Your task to perform on an android device: Search for macbook pro 15 inch on walmart, select the first entry, add it to the cart, then select checkout. Image 0: 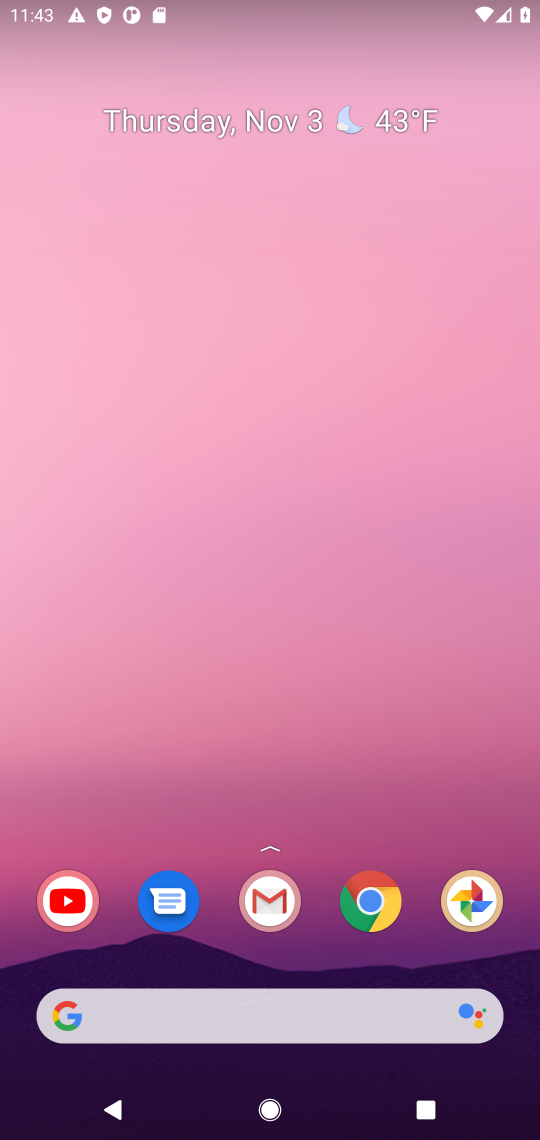
Step 0: click (374, 898)
Your task to perform on an android device: Search for macbook pro 15 inch on walmart, select the first entry, add it to the cart, then select checkout. Image 1: 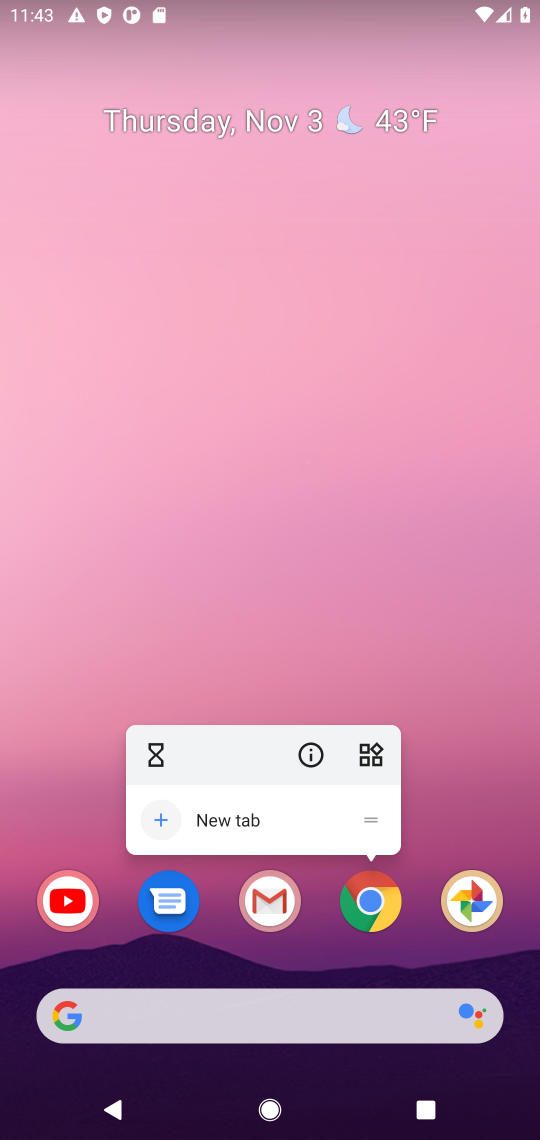
Step 1: click (374, 898)
Your task to perform on an android device: Search for macbook pro 15 inch on walmart, select the first entry, add it to the cart, then select checkout. Image 2: 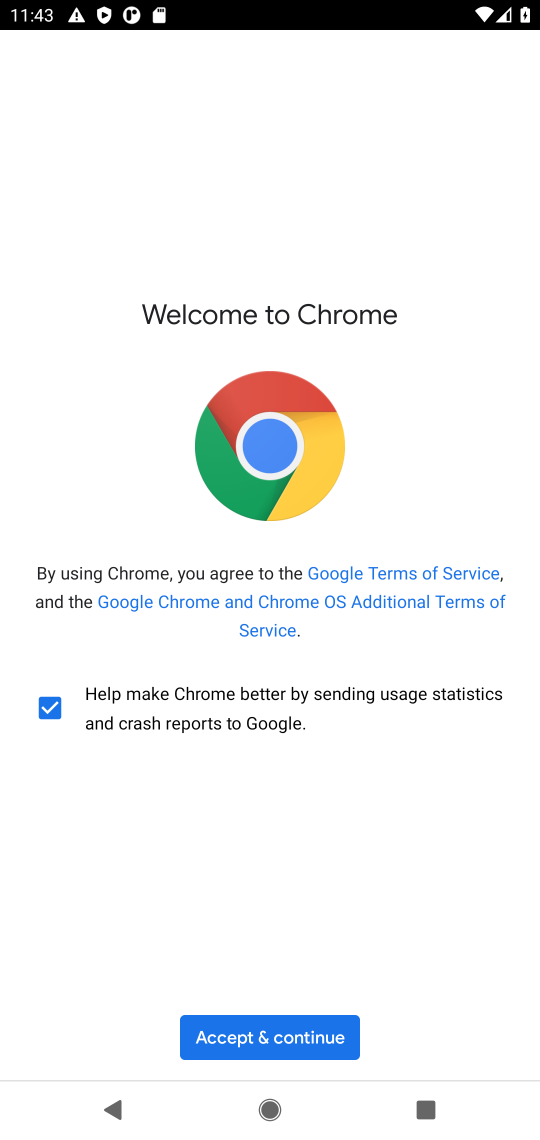
Step 2: click (300, 1030)
Your task to perform on an android device: Search for macbook pro 15 inch on walmart, select the first entry, add it to the cart, then select checkout. Image 3: 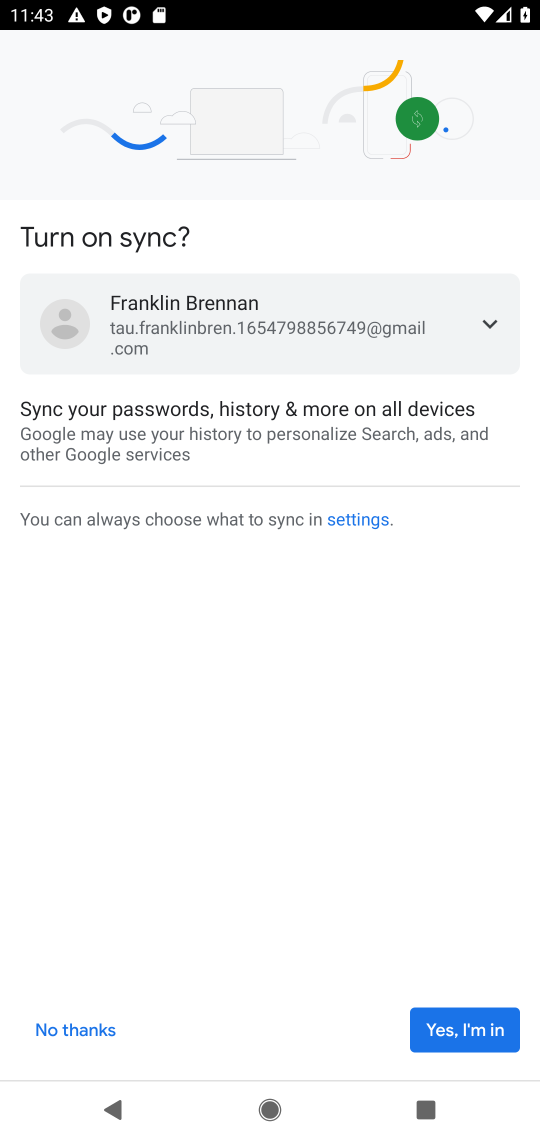
Step 3: click (503, 1029)
Your task to perform on an android device: Search for macbook pro 15 inch on walmart, select the first entry, add it to the cart, then select checkout. Image 4: 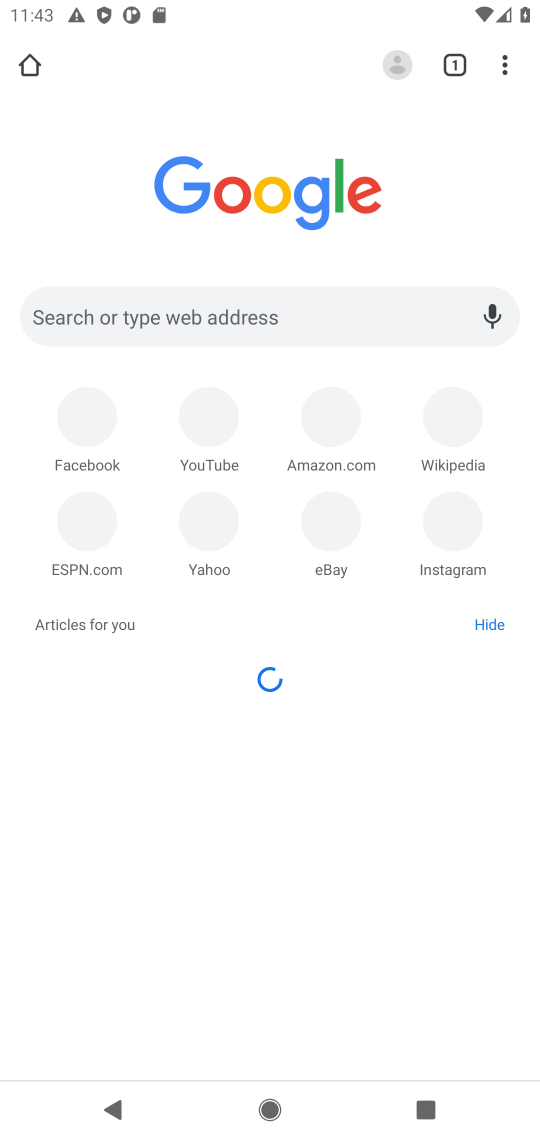
Step 4: click (303, 315)
Your task to perform on an android device: Search for macbook pro 15 inch on walmart, select the first entry, add it to the cart, then select checkout. Image 5: 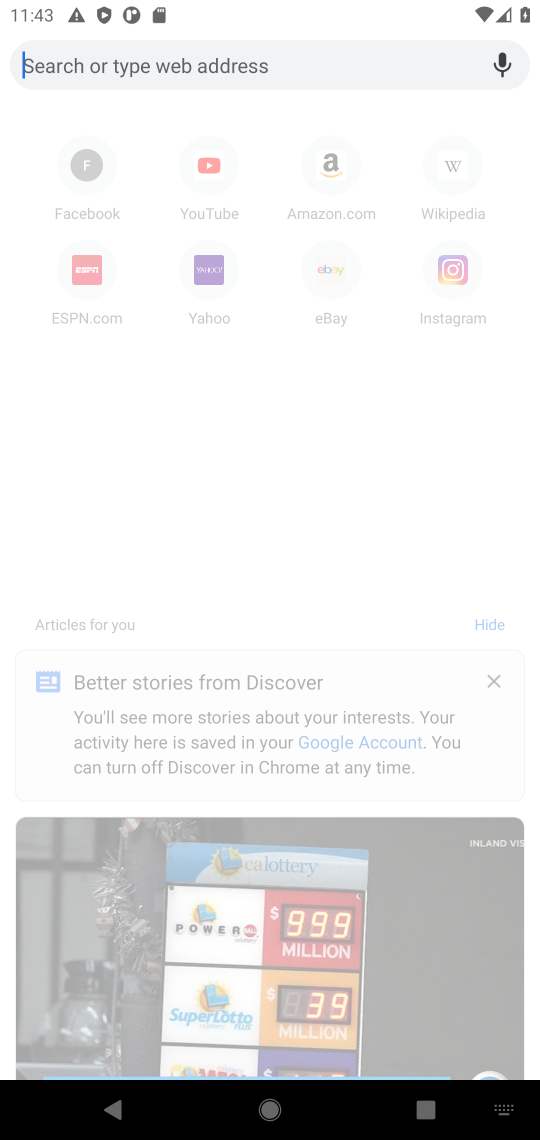
Step 5: type "walmart"
Your task to perform on an android device: Search for macbook pro 15 inch on walmart, select the first entry, add it to the cart, then select checkout. Image 6: 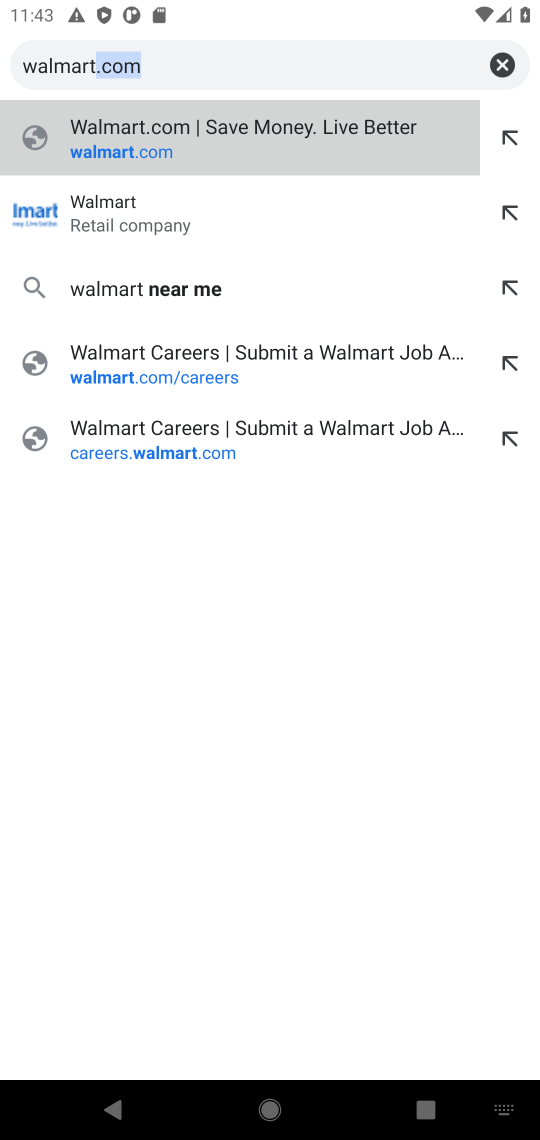
Step 6: click (254, 75)
Your task to perform on an android device: Search for macbook pro 15 inch on walmart, select the first entry, add it to the cart, then select checkout. Image 7: 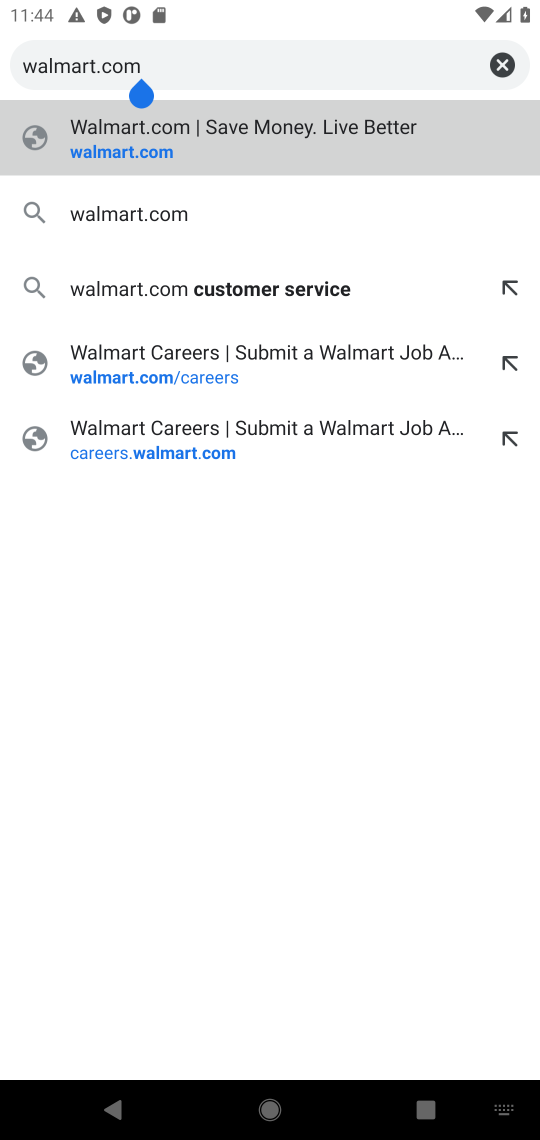
Step 7: click (157, 205)
Your task to perform on an android device: Search for macbook pro 15 inch on walmart, select the first entry, add it to the cart, then select checkout. Image 8: 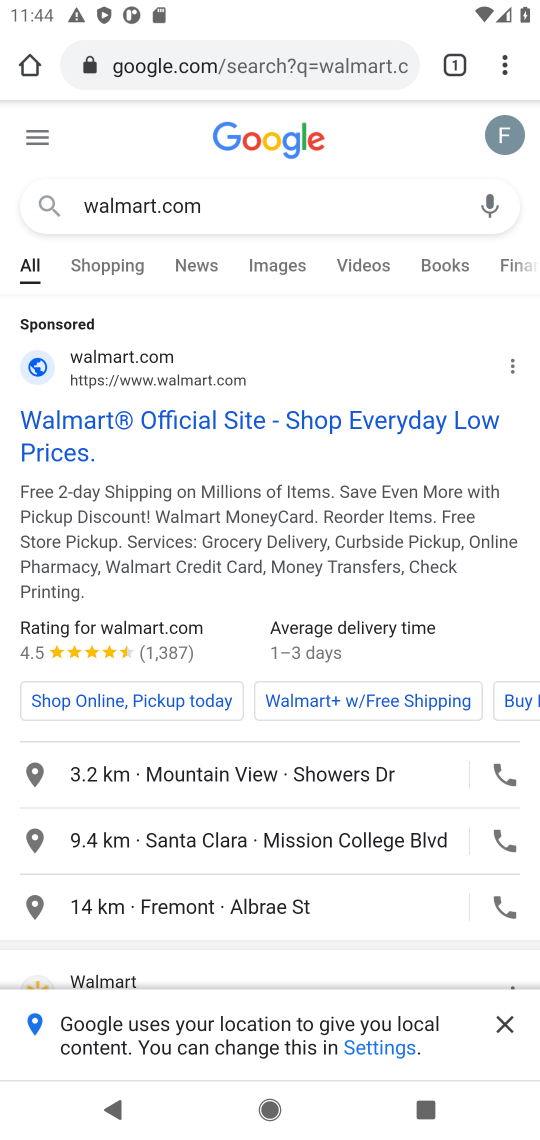
Step 8: drag from (396, 740) to (394, 475)
Your task to perform on an android device: Search for macbook pro 15 inch on walmart, select the first entry, add it to the cart, then select checkout. Image 9: 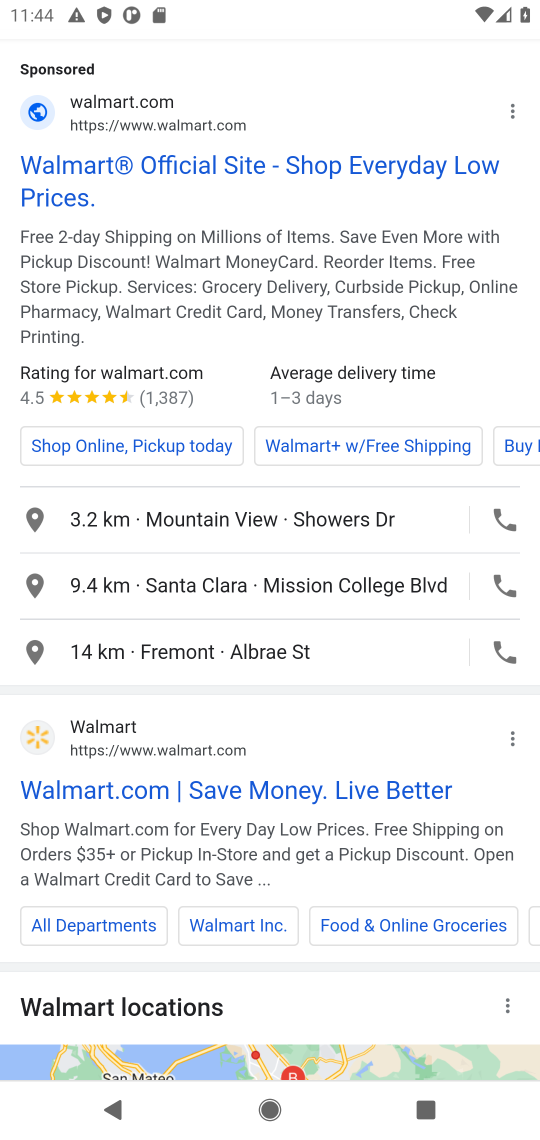
Step 9: click (199, 749)
Your task to perform on an android device: Search for macbook pro 15 inch on walmart, select the first entry, add it to the cart, then select checkout. Image 10: 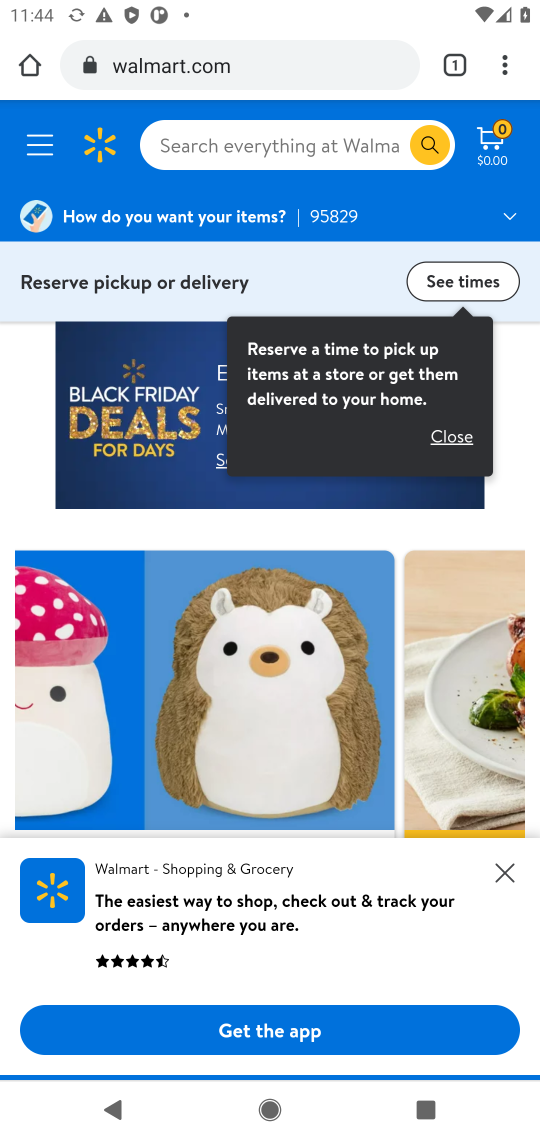
Step 10: click (289, 133)
Your task to perform on an android device: Search for macbook pro 15 inch on walmart, select the first entry, add it to the cart, then select checkout. Image 11: 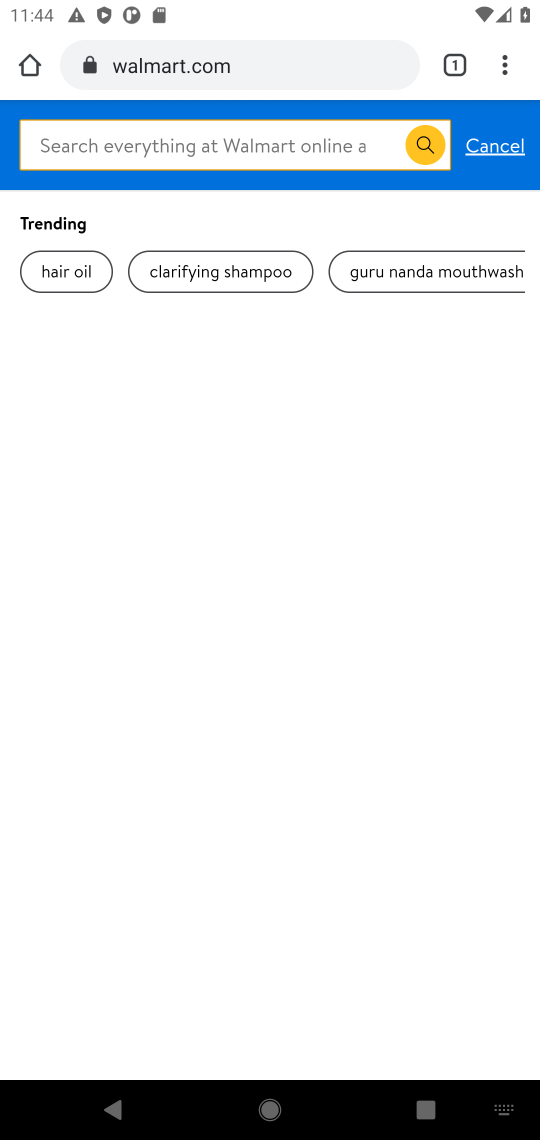
Step 11: type " macbook pro 15 inch"
Your task to perform on an android device: Search for macbook pro 15 inch on walmart, select the first entry, add it to the cart, then select checkout. Image 12: 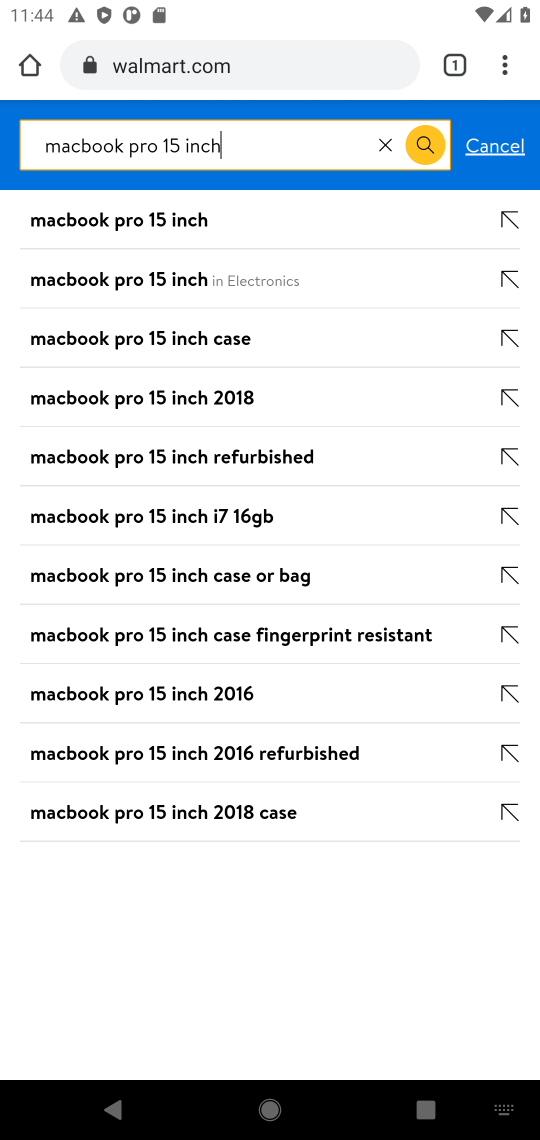
Step 12: click (178, 211)
Your task to perform on an android device: Search for macbook pro 15 inch on walmart, select the first entry, add it to the cart, then select checkout. Image 13: 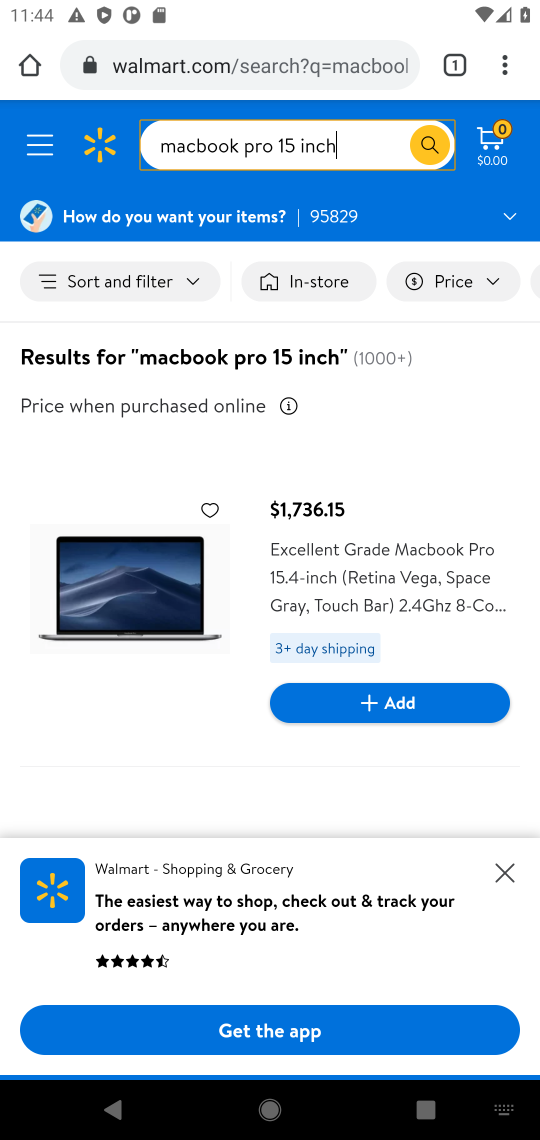
Step 13: click (202, 585)
Your task to perform on an android device: Search for macbook pro 15 inch on walmart, select the first entry, add it to the cart, then select checkout. Image 14: 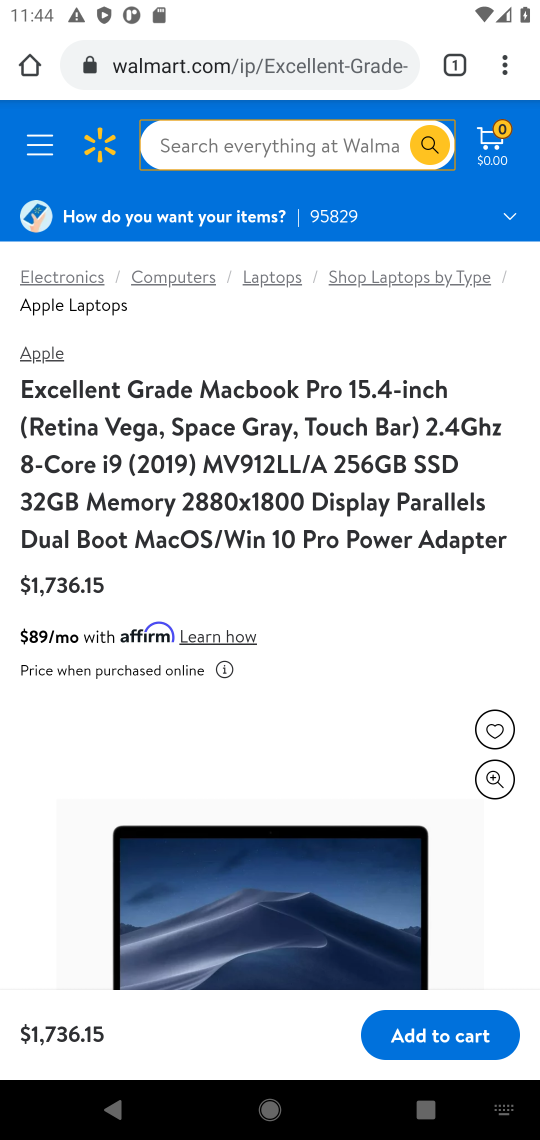
Step 14: drag from (236, 766) to (210, 369)
Your task to perform on an android device: Search for macbook pro 15 inch on walmart, select the first entry, add it to the cart, then select checkout. Image 15: 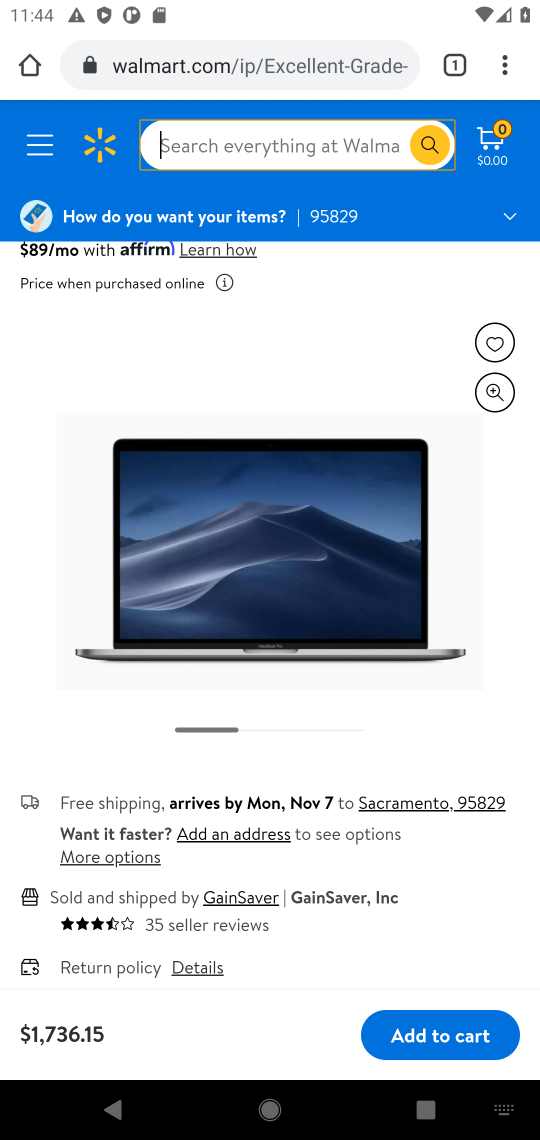
Step 15: click (441, 1031)
Your task to perform on an android device: Search for macbook pro 15 inch on walmart, select the first entry, add it to the cart, then select checkout. Image 16: 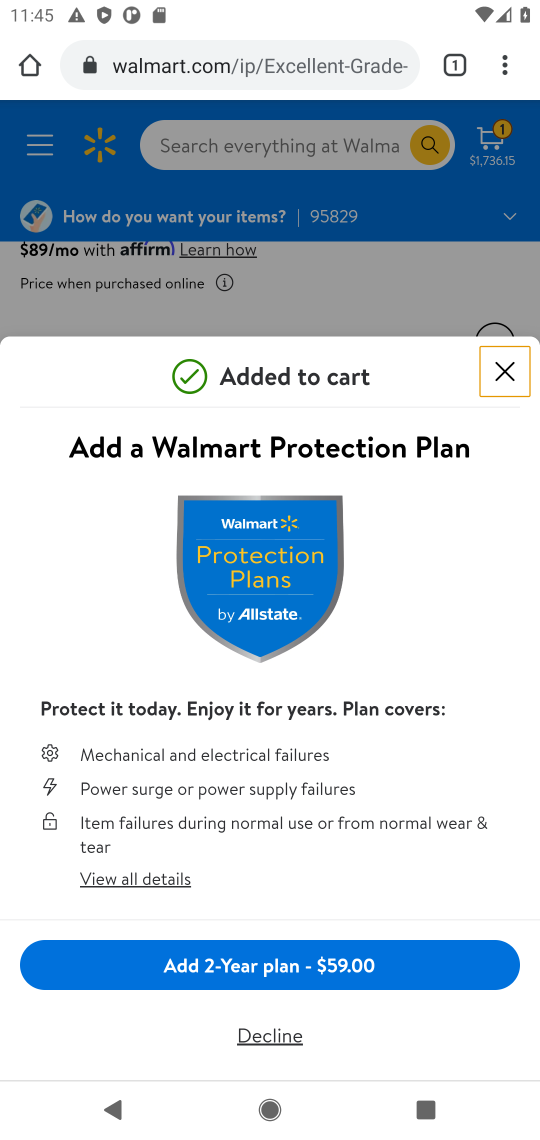
Step 16: click (510, 378)
Your task to perform on an android device: Search for macbook pro 15 inch on walmart, select the first entry, add it to the cart, then select checkout. Image 17: 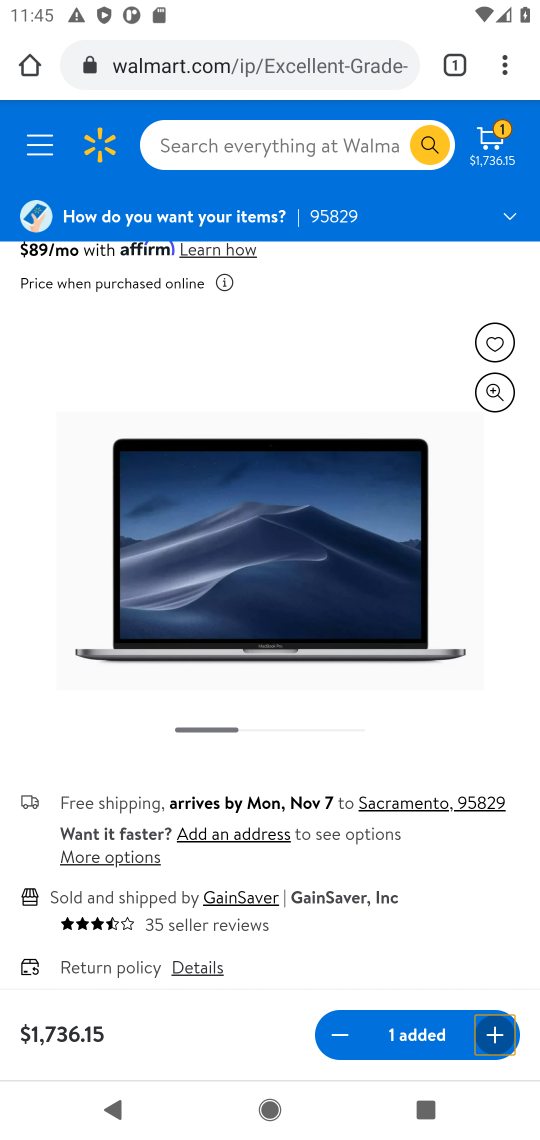
Step 17: click (506, 156)
Your task to perform on an android device: Search for macbook pro 15 inch on walmart, select the first entry, add it to the cart, then select checkout. Image 18: 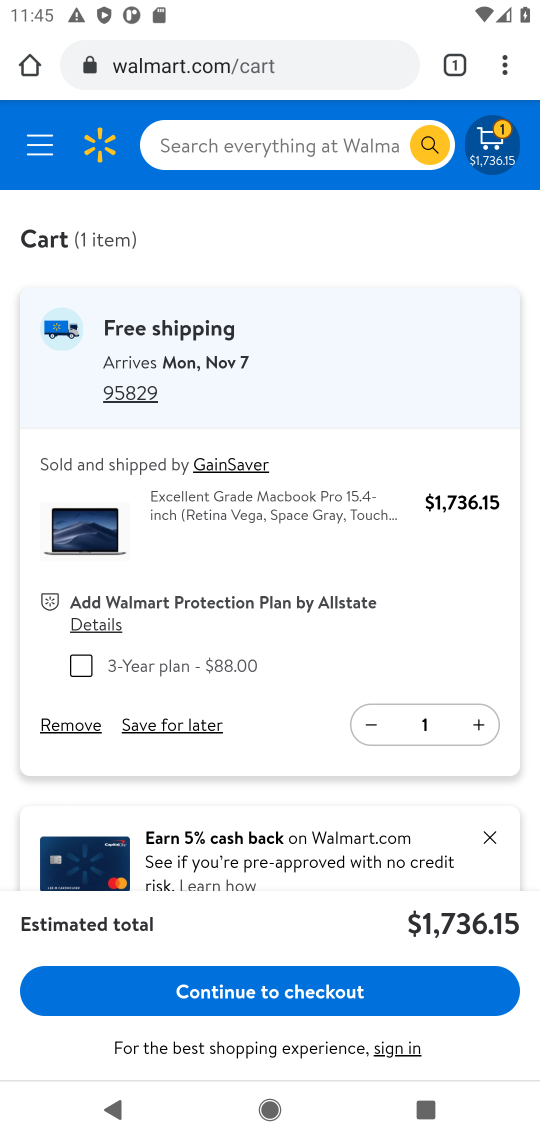
Step 18: click (307, 978)
Your task to perform on an android device: Search for macbook pro 15 inch on walmart, select the first entry, add it to the cart, then select checkout. Image 19: 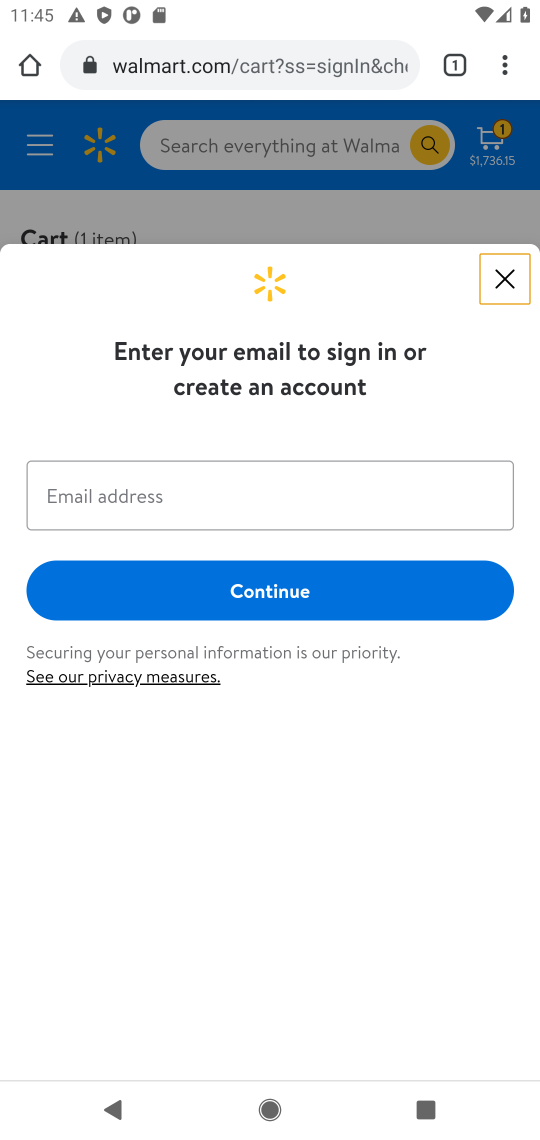
Step 19: task complete